Your task to perform on an android device: turn on wifi Image 0: 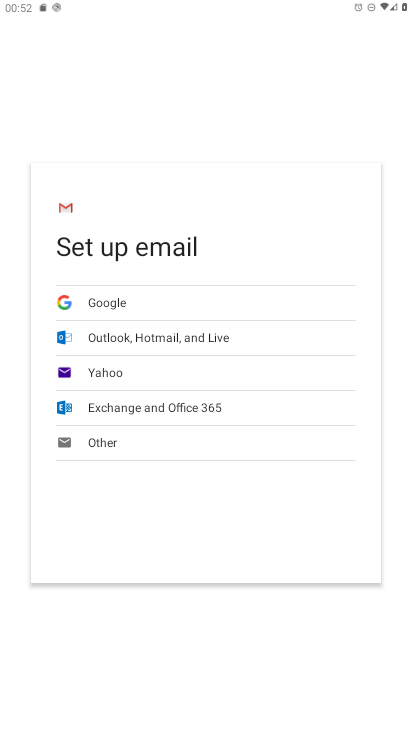
Step 0: press home button
Your task to perform on an android device: turn on wifi Image 1: 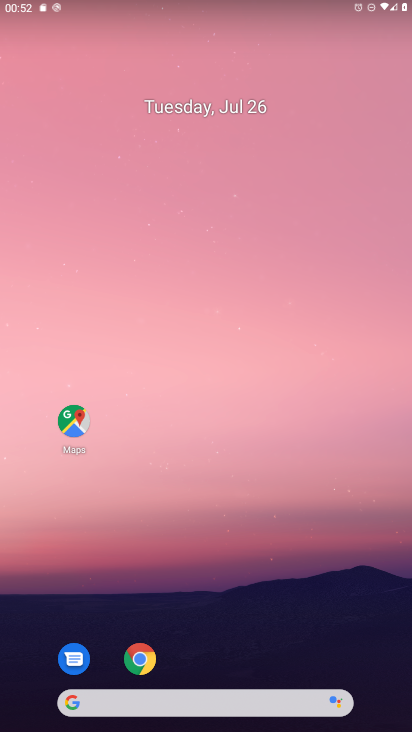
Step 1: task complete